Your task to perform on an android device: Open wifi settings Image 0: 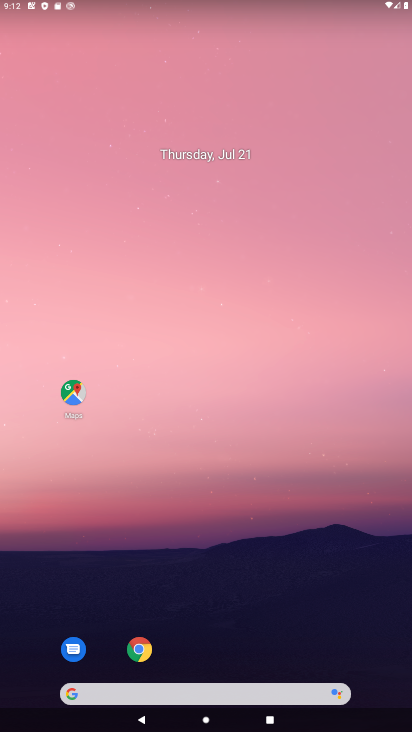
Step 0: drag from (212, 649) to (242, 105)
Your task to perform on an android device: Open wifi settings Image 1: 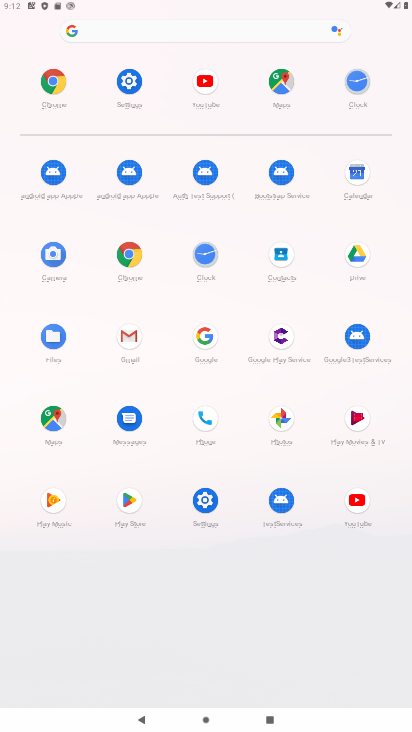
Step 1: click (130, 89)
Your task to perform on an android device: Open wifi settings Image 2: 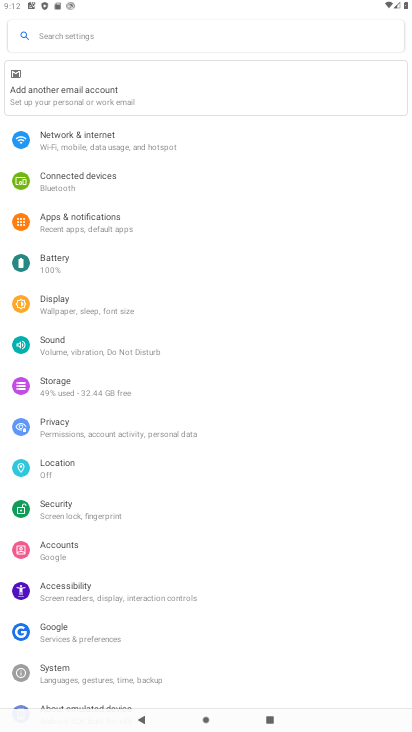
Step 2: click (96, 146)
Your task to perform on an android device: Open wifi settings Image 3: 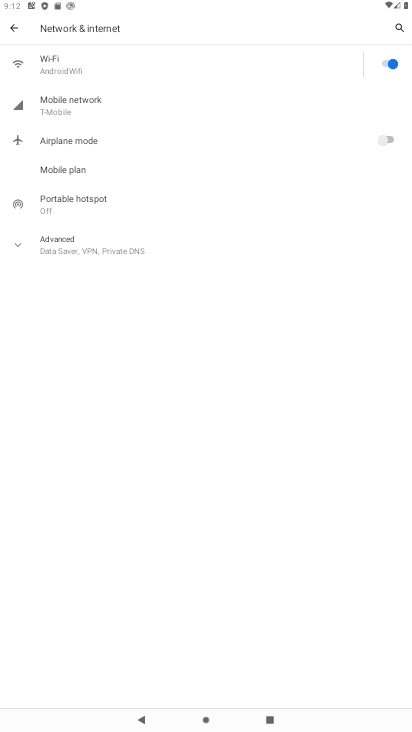
Step 3: click (103, 61)
Your task to perform on an android device: Open wifi settings Image 4: 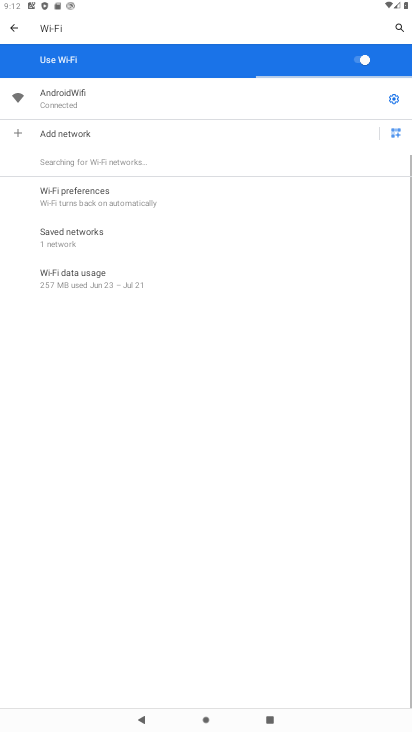
Step 4: task complete